Your task to perform on an android device: choose inbox layout in the gmail app Image 0: 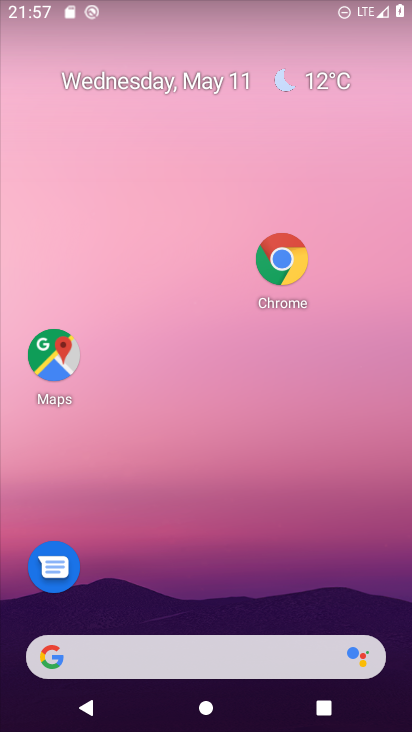
Step 0: drag from (252, 639) to (303, 108)
Your task to perform on an android device: choose inbox layout in the gmail app Image 1: 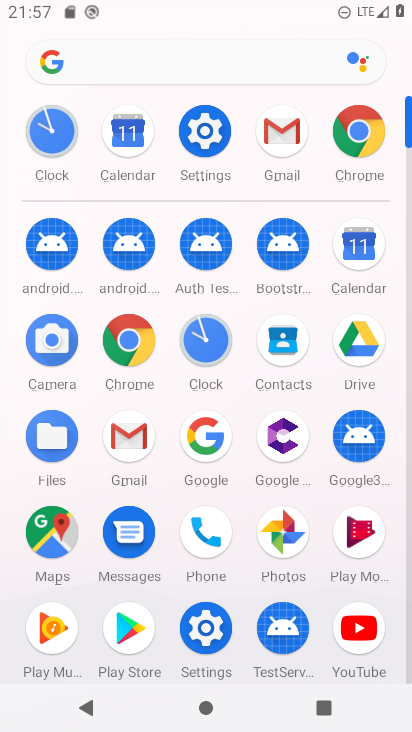
Step 1: click (281, 143)
Your task to perform on an android device: choose inbox layout in the gmail app Image 2: 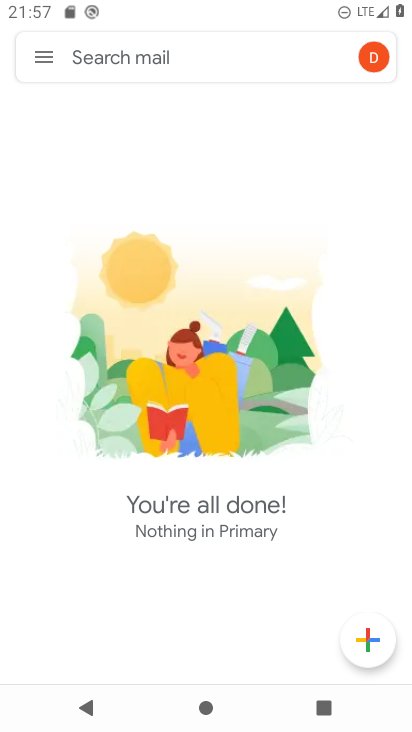
Step 2: click (47, 56)
Your task to perform on an android device: choose inbox layout in the gmail app Image 3: 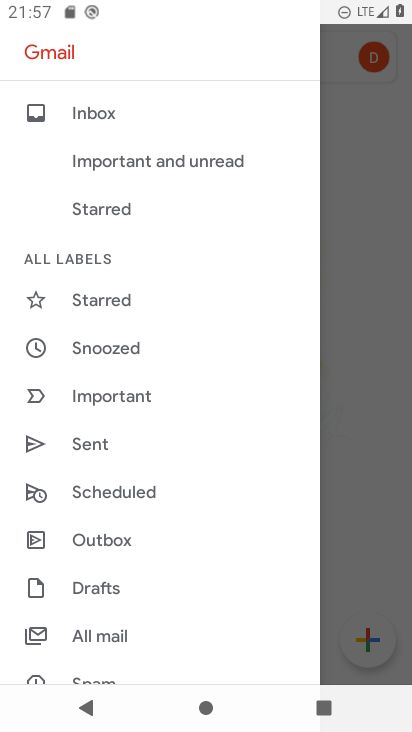
Step 3: drag from (152, 669) to (226, 182)
Your task to perform on an android device: choose inbox layout in the gmail app Image 4: 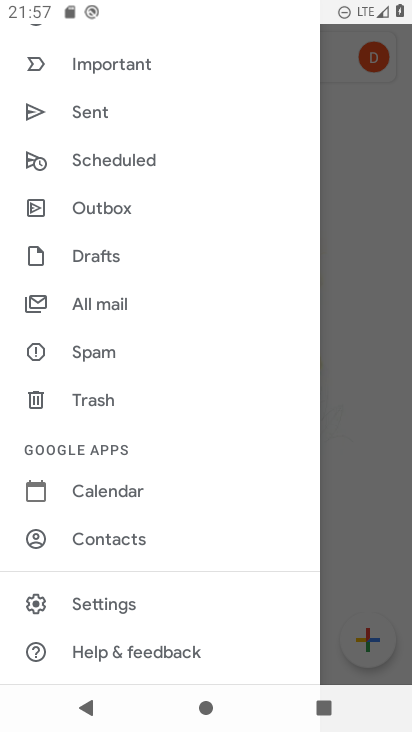
Step 4: click (121, 601)
Your task to perform on an android device: choose inbox layout in the gmail app Image 5: 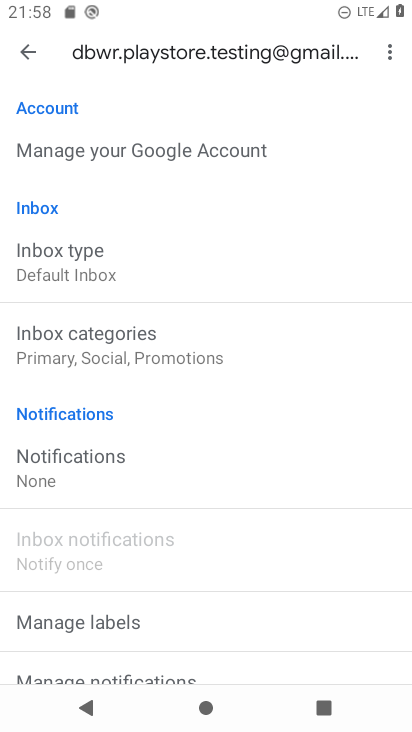
Step 5: click (82, 264)
Your task to perform on an android device: choose inbox layout in the gmail app Image 6: 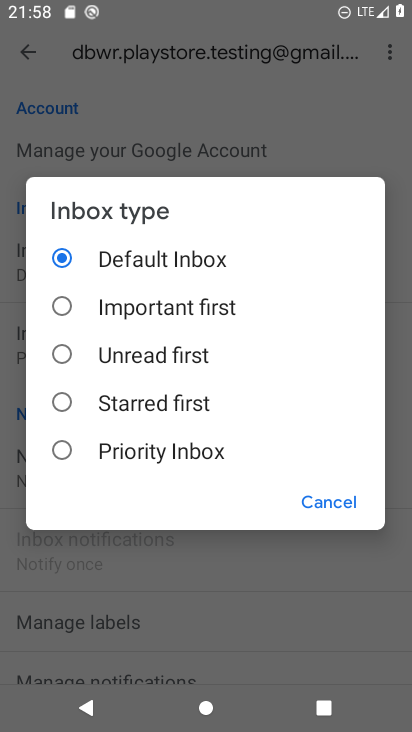
Step 6: click (60, 354)
Your task to perform on an android device: choose inbox layout in the gmail app Image 7: 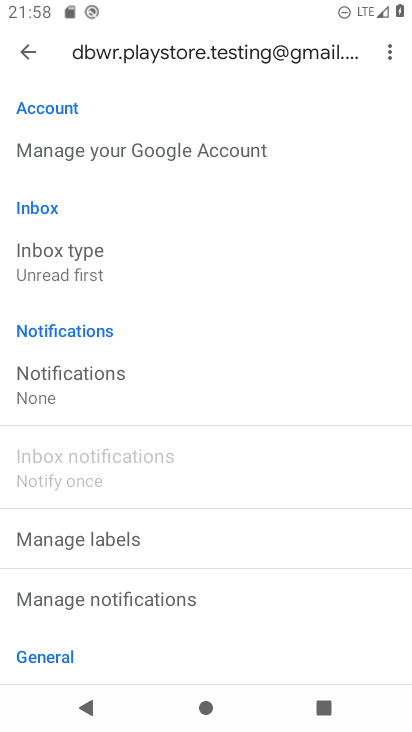
Step 7: task complete